Your task to perform on an android device: allow cookies in the chrome app Image 0: 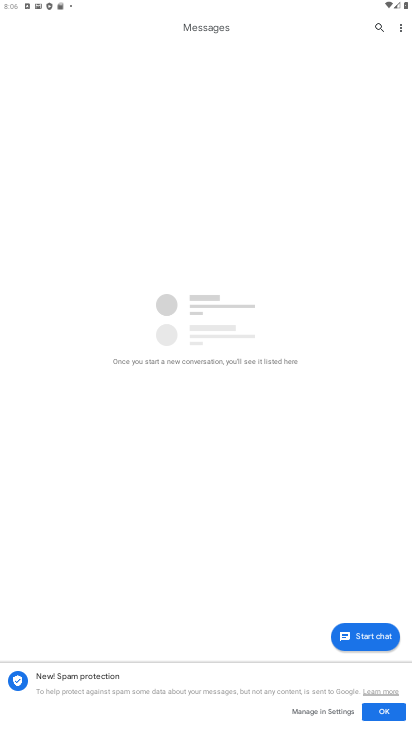
Step 0: press home button
Your task to perform on an android device: allow cookies in the chrome app Image 1: 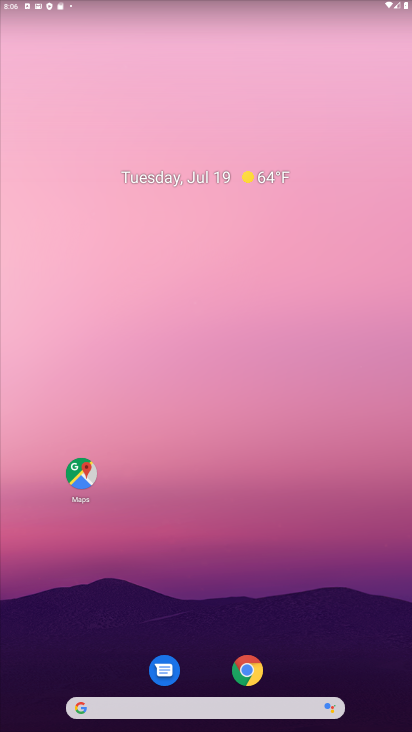
Step 1: click (246, 670)
Your task to perform on an android device: allow cookies in the chrome app Image 2: 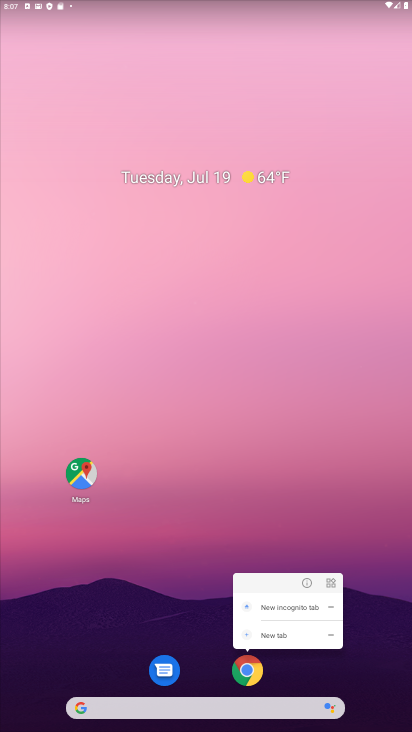
Step 2: click (246, 670)
Your task to perform on an android device: allow cookies in the chrome app Image 3: 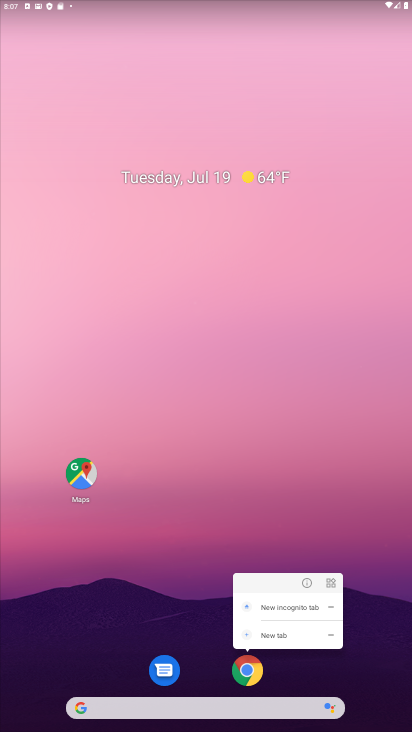
Step 3: click (246, 670)
Your task to perform on an android device: allow cookies in the chrome app Image 4: 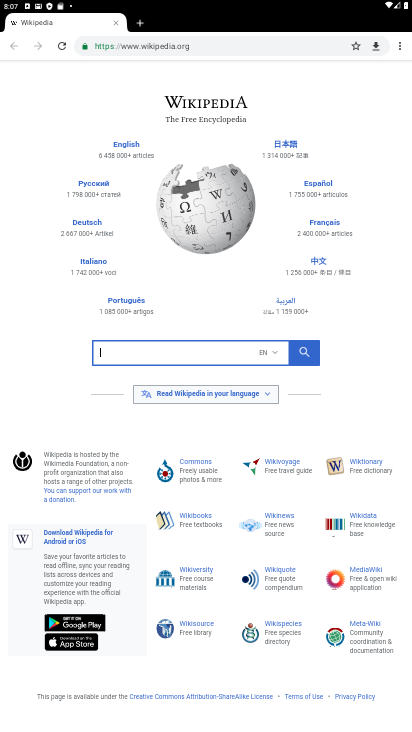
Step 4: click (400, 45)
Your task to perform on an android device: allow cookies in the chrome app Image 5: 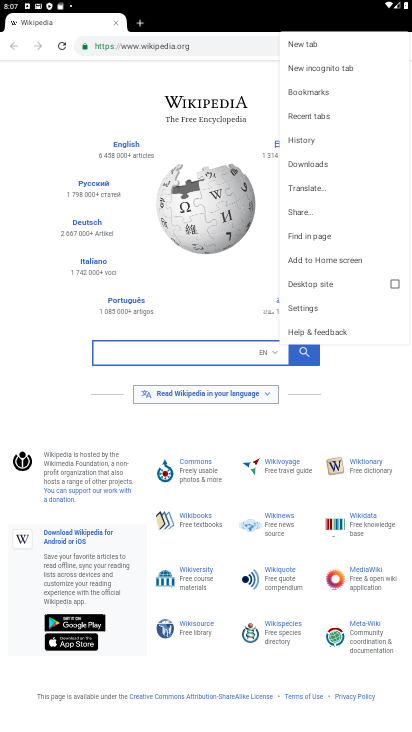
Step 5: click (322, 312)
Your task to perform on an android device: allow cookies in the chrome app Image 6: 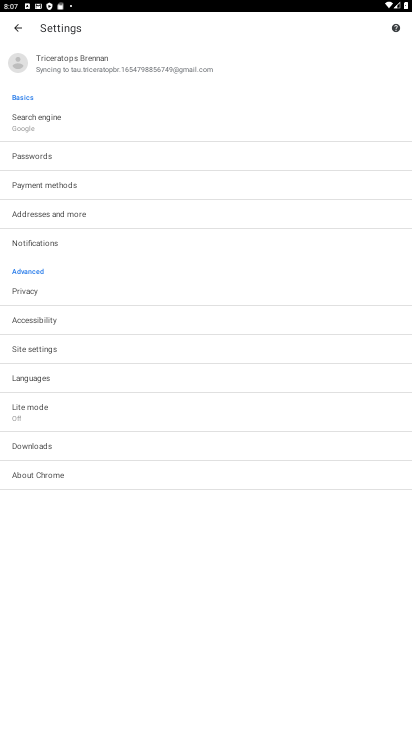
Step 6: click (51, 349)
Your task to perform on an android device: allow cookies in the chrome app Image 7: 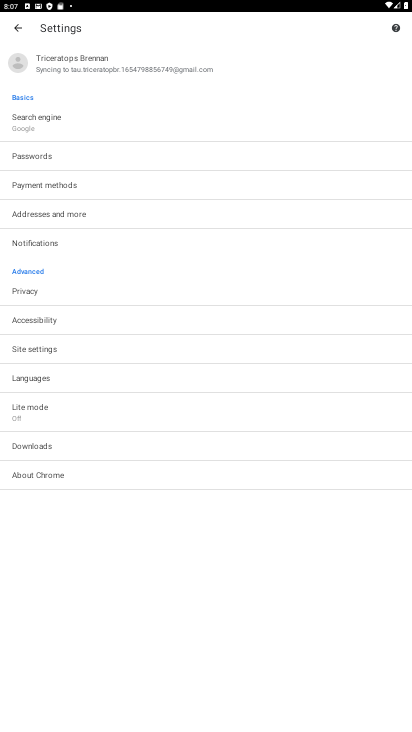
Step 7: click (51, 349)
Your task to perform on an android device: allow cookies in the chrome app Image 8: 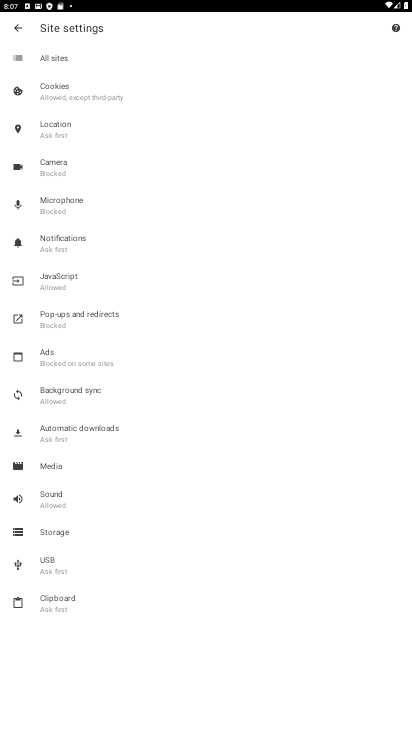
Step 8: click (92, 95)
Your task to perform on an android device: allow cookies in the chrome app Image 9: 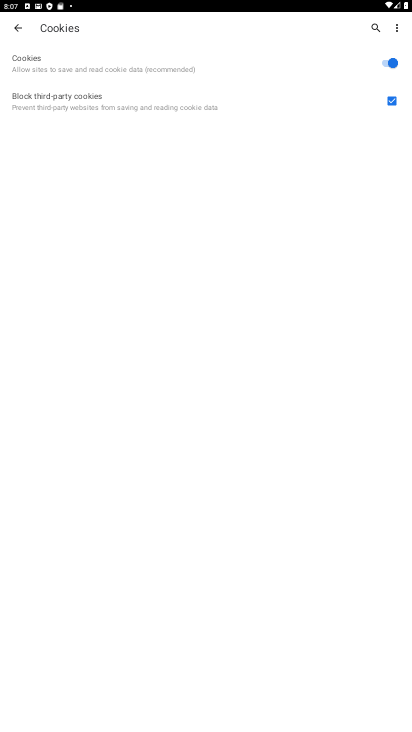
Step 9: task complete